Your task to perform on an android device: turn notification dots on Image 0: 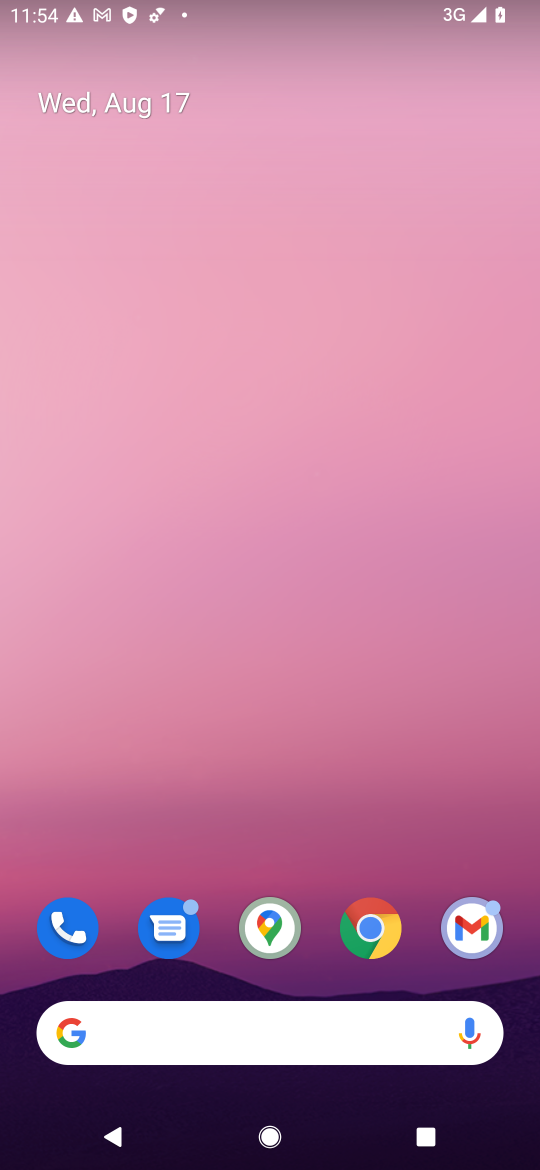
Step 0: drag from (308, 733) to (308, 282)
Your task to perform on an android device: turn notification dots on Image 1: 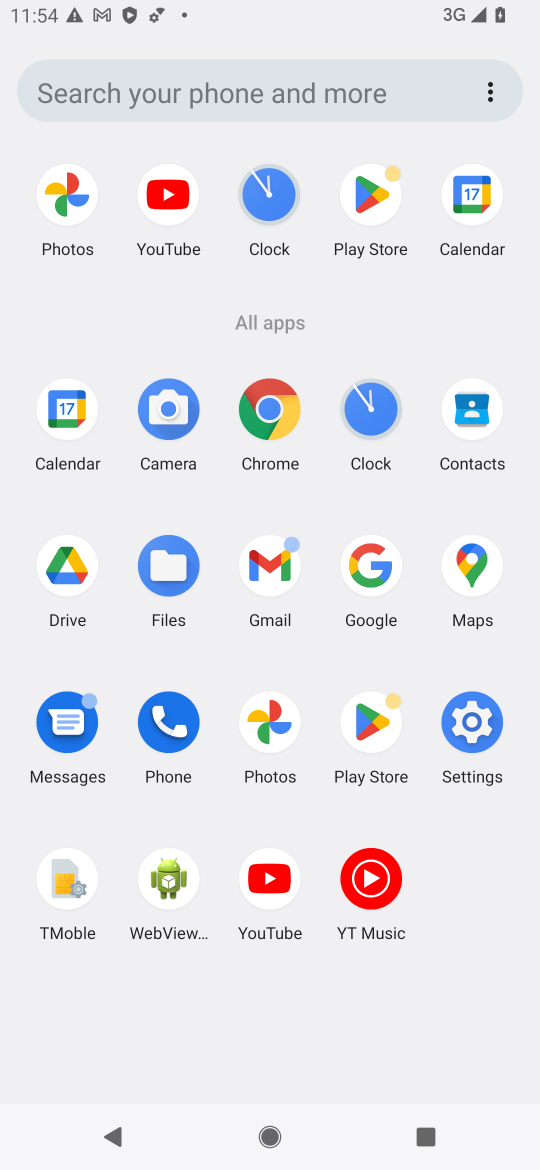
Step 1: click (466, 710)
Your task to perform on an android device: turn notification dots on Image 2: 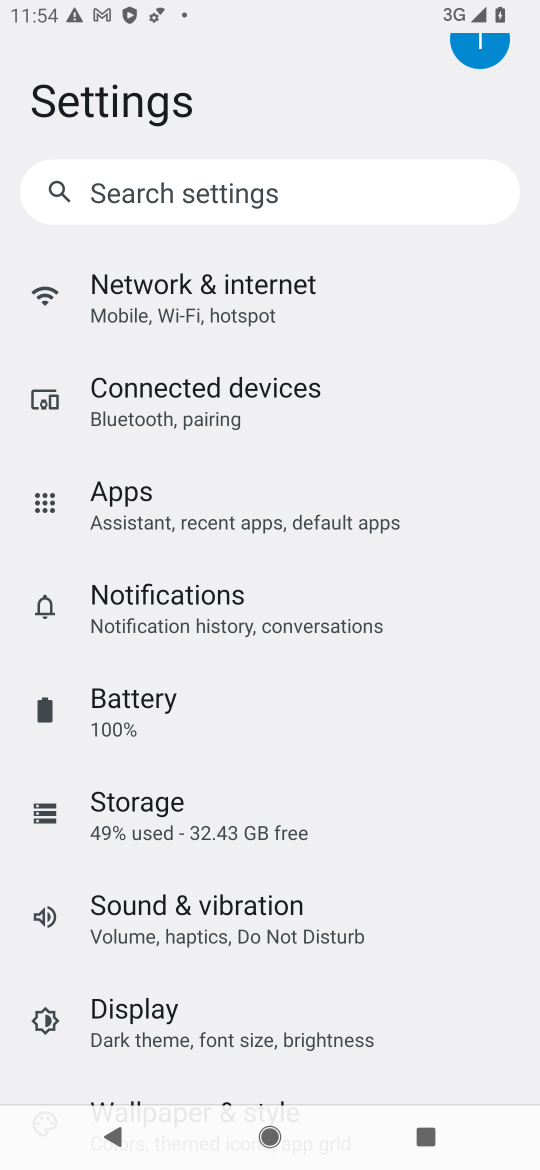
Step 2: click (215, 599)
Your task to perform on an android device: turn notification dots on Image 3: 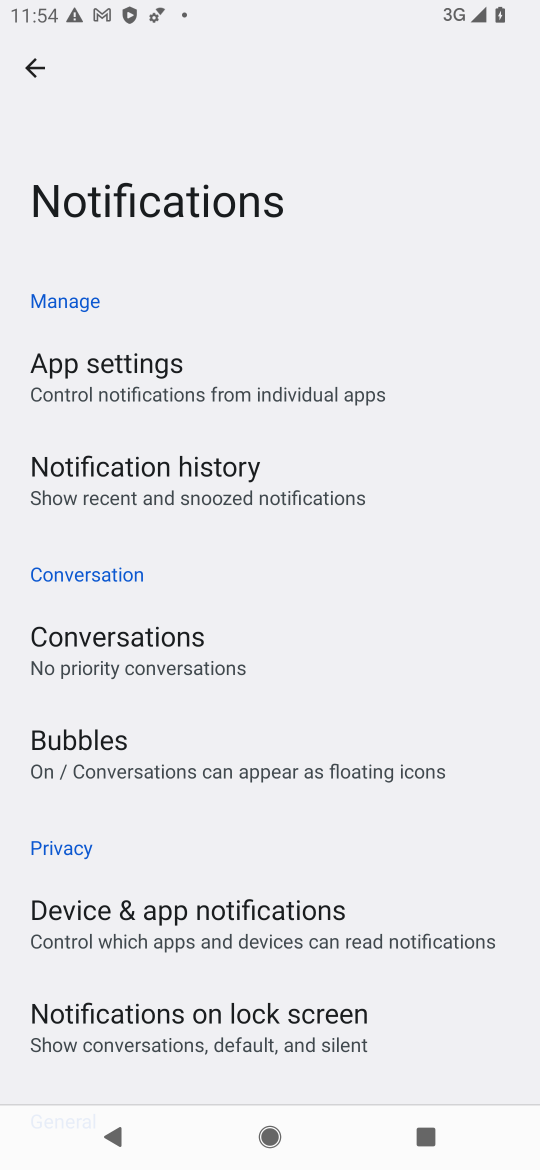
Step 3: drag from (263, 856) to (286, 413)
Your task to perform on an android device: turn notification dots on Image 4: 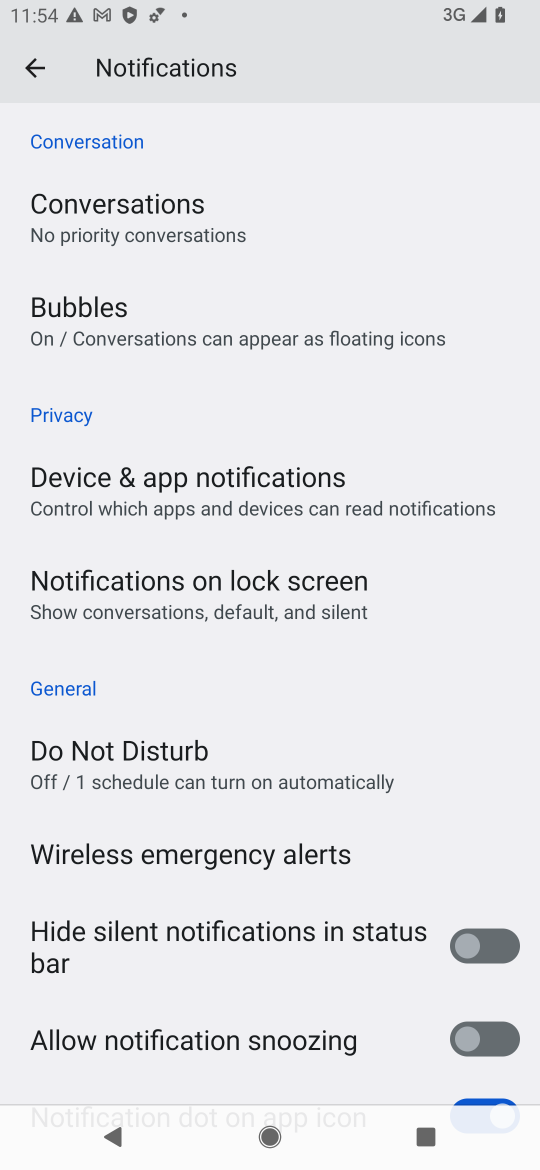
Step 4: click (322, 394)
Your task to perform on an android device: turn notification dots on Image 5: 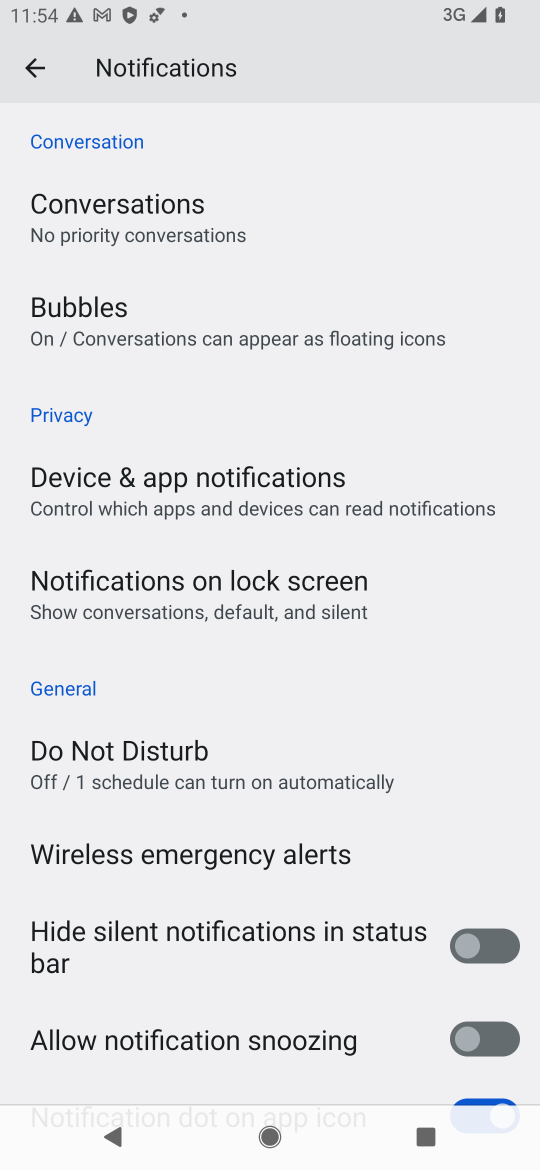
Step 5: task complete